Your task to perform on an android device: How do I get to the nearest AT&T Store? Image 0: 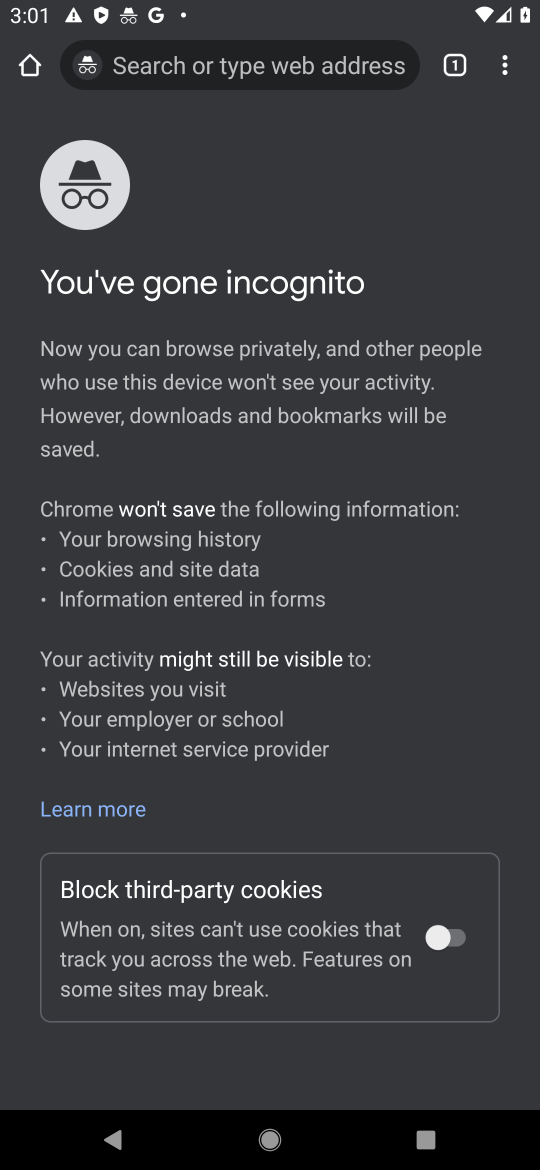
Step 0: press home button
Your task to perform on an android device: How do I get to the nearest AT&T Store? Image 1: 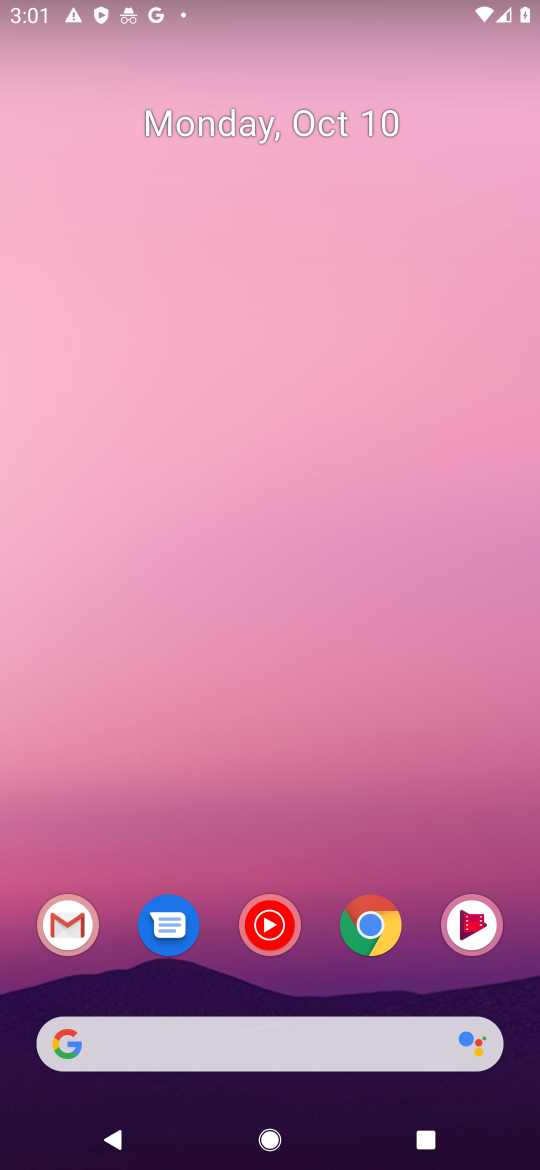
Step 1: click (377, 946)
Your task to perform on an android device: How do I get to the nearest AT&T Store? Image 2: 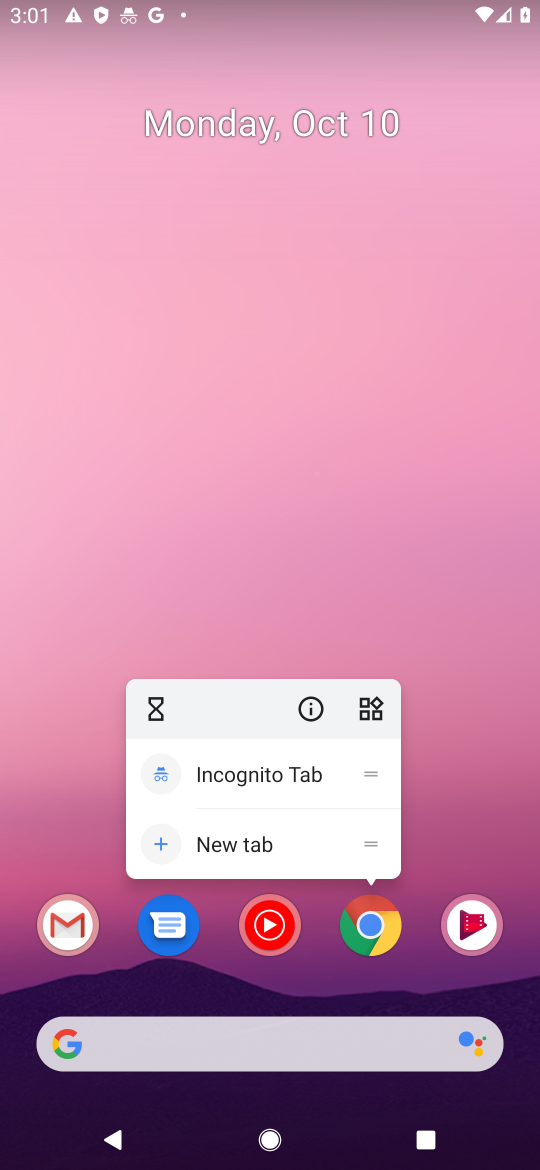
Step 2: click (377, 946)
Your task to perform on an android device: How do I get to the nearest AT&T Store? Image 3: 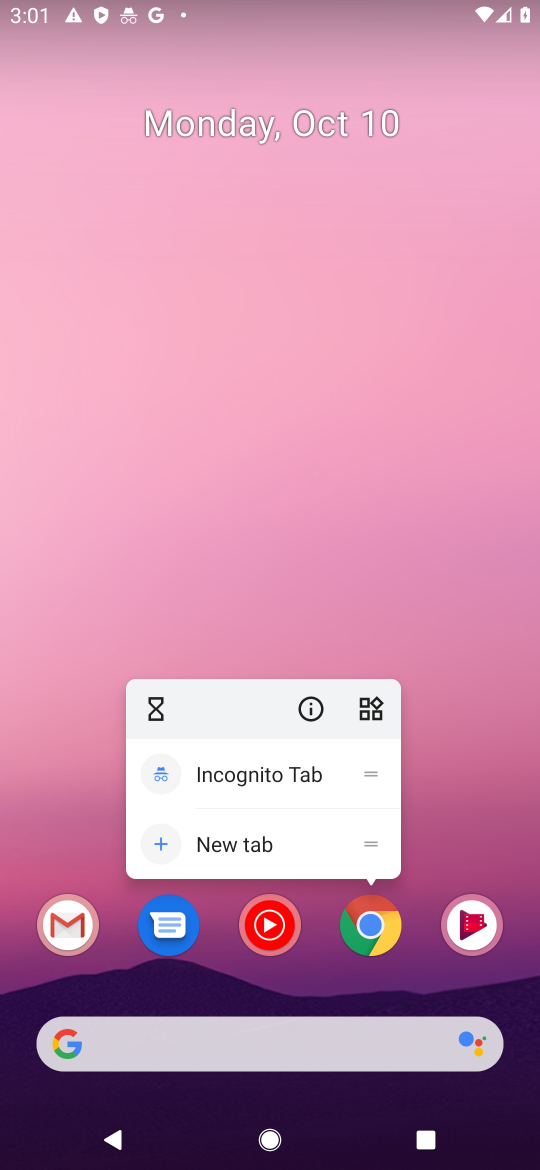
Step 3: click (377, 946)
Your task to perform on an android device: How do I get to the nearest AT&T Store? Image 4: 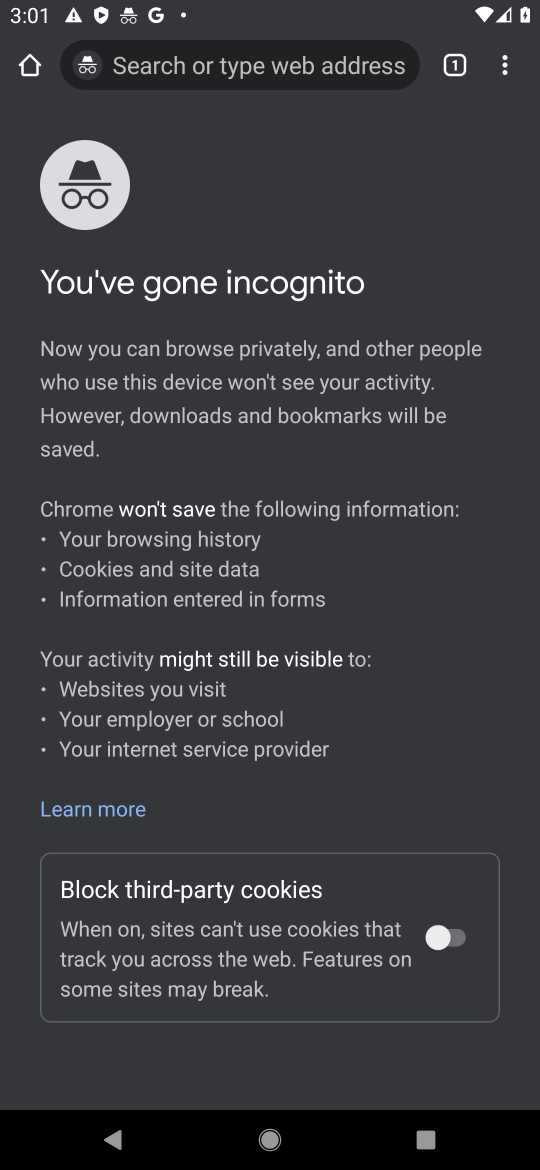
Step 4: click (341, 74)
Your task to perform on an android device: How do I get to the nearest AT&T Store? Image 5: 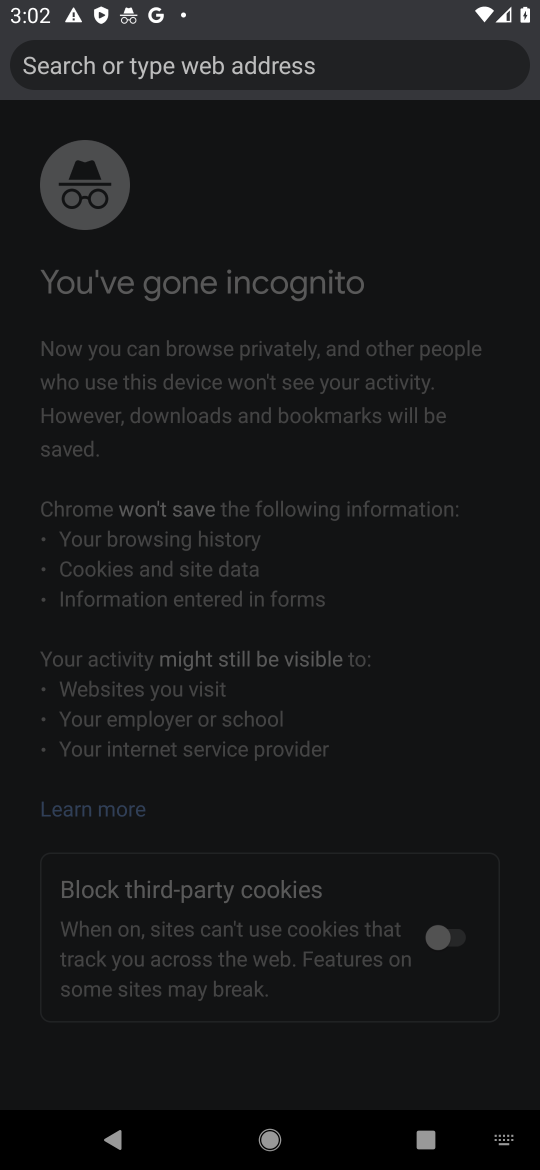
Step 5: type "How do I get to the nearest AT&T Store?"
Your task to perform on an android device: How do I get to the nearest AT&T Store? Image 6: 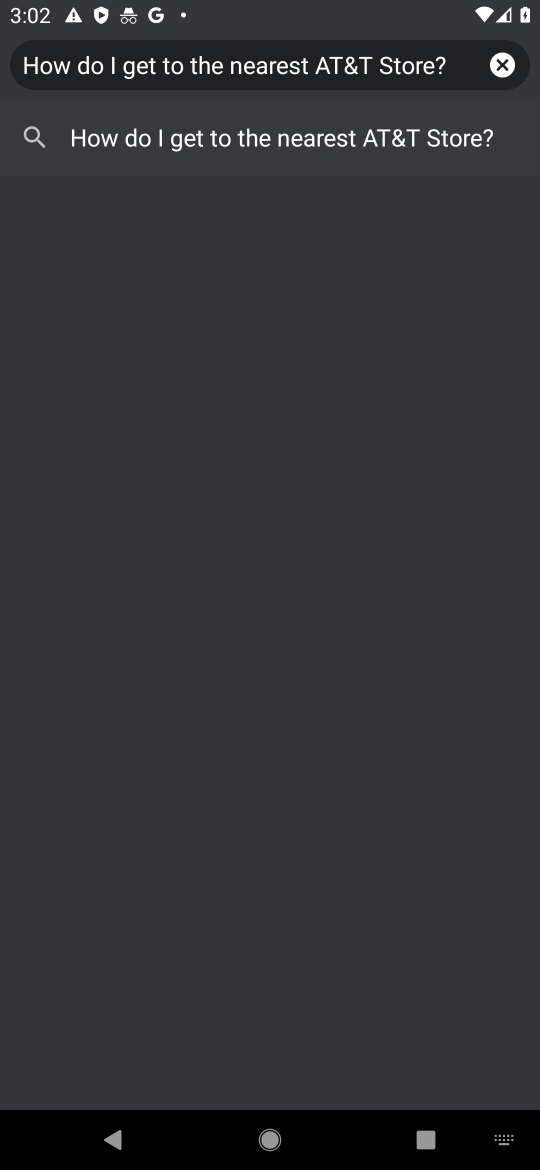
Step 6: click (322, 149)
Your task to perform on an android device: How do I get to the nearest AT&T Store? Image 7: 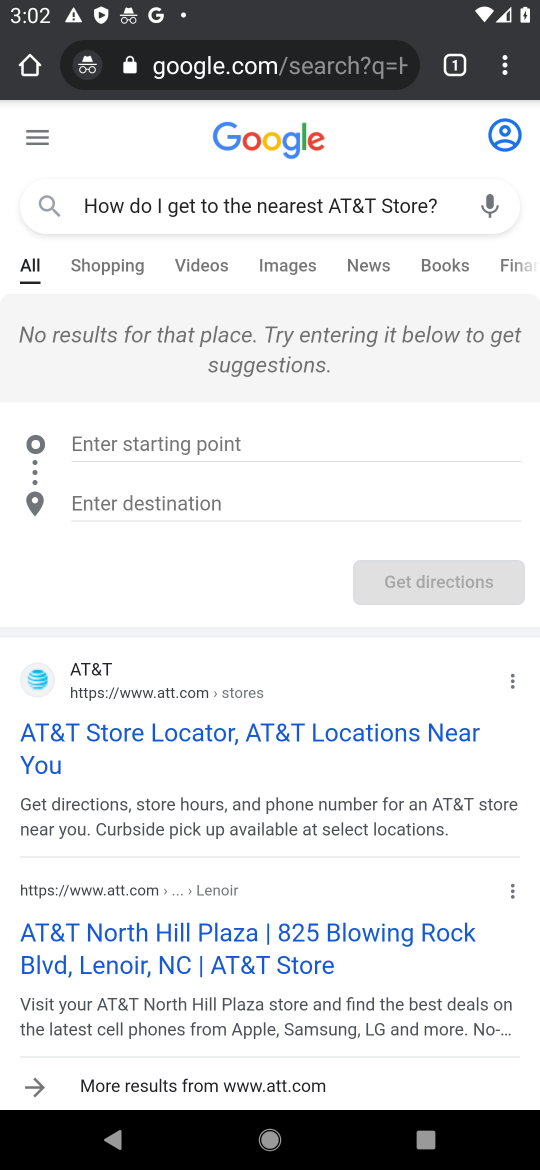
Step 7: task complete